Your task to perform on an android device: snooze an email in the gmail app Image 0: 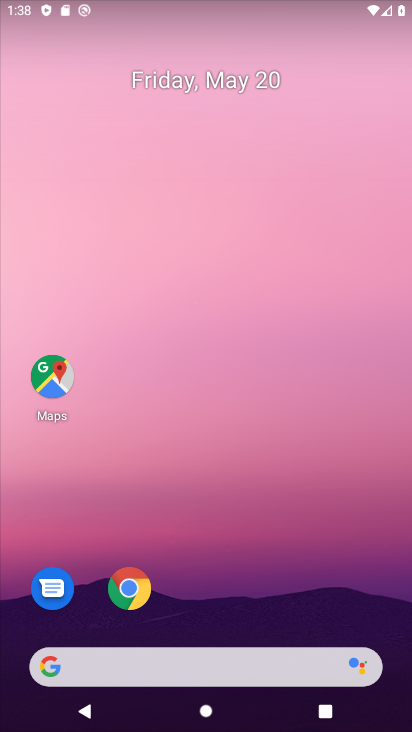
Step 0: drag from (148, 650) to (139, 163)
Your task to perform on an android device: snooze an email in the gmail app Image 1: 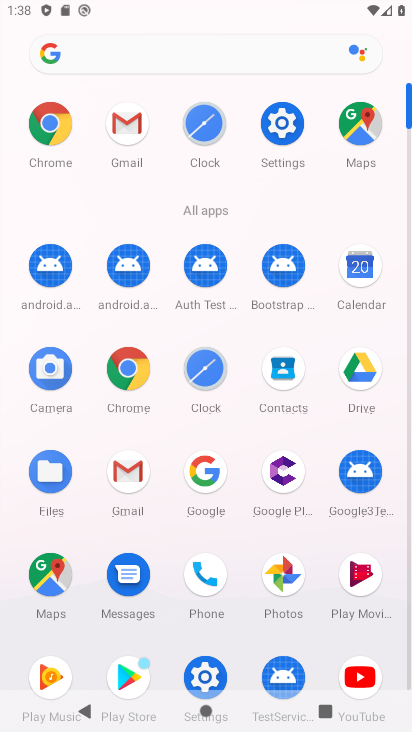
Step 1: click (137, 473)
Your task to perform on an android device: snooze an email in the gmail app Image 2: 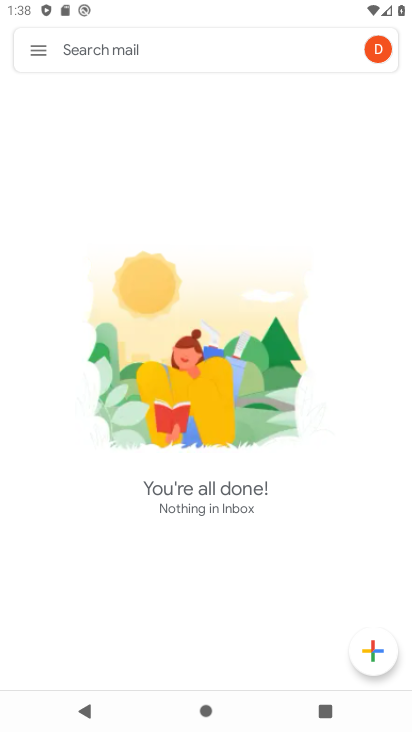
Step 2: click (39, 47)
Your task to perform on an android device: snooze an email in the gmail app Image 3: 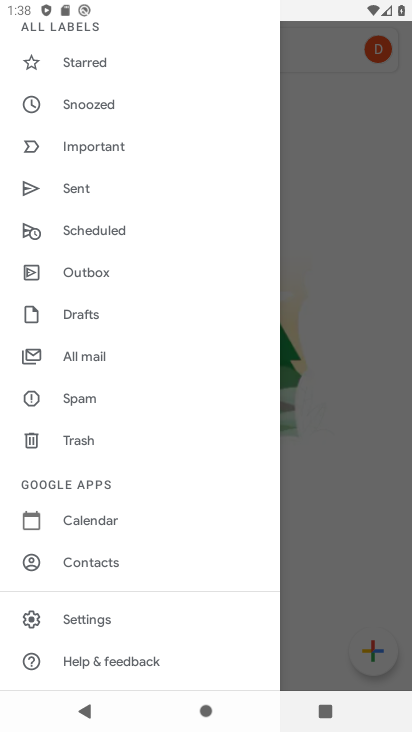
Step 3: click (73, 352)
Your task to perform on an android device: snooze an email in the gmail app Image 4: 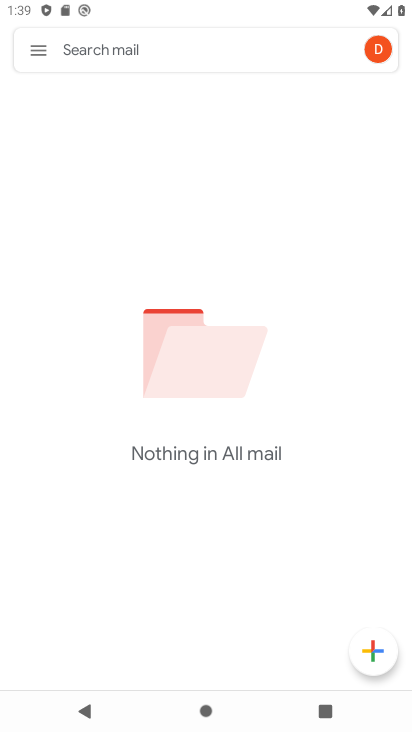
Step 4: task complete